Your task to perform on an android device: Go to battery settings Image 0: 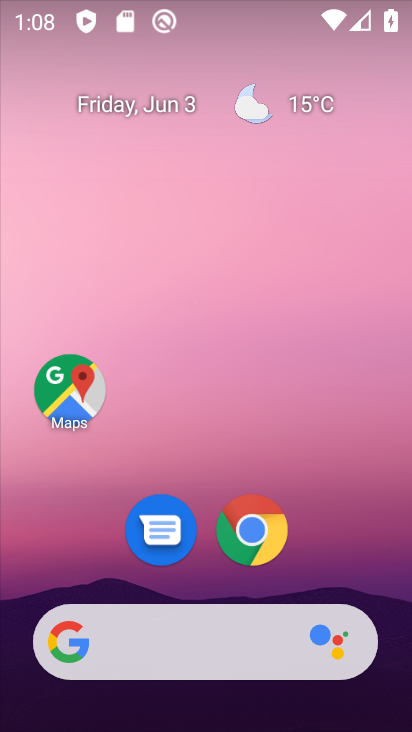
Step 0: drag from (284, 231) to (288, 59)
Your task to perform on an android device: Go to battery settings Image 1: 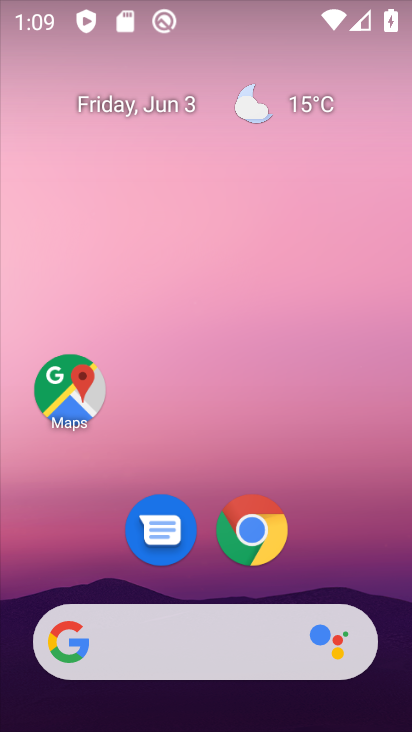
Step 1: drag from (319, 580) to (319, 7)
Your task to perform on an android device: Go to battery settings Image 2: 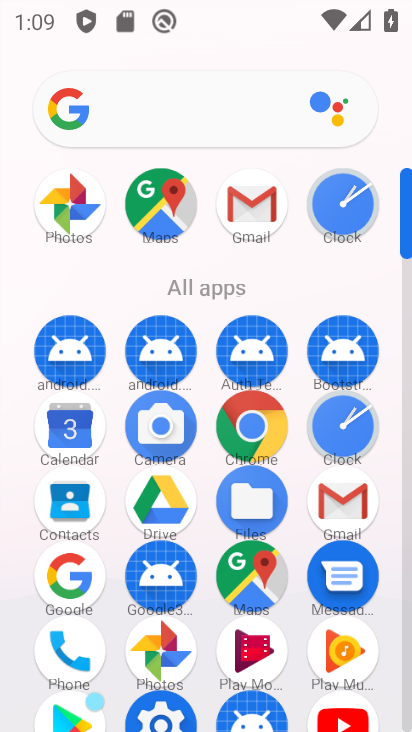
Step 2: click (161, 700)
Your task to perform on an android device: Go to battery settings Image 3: 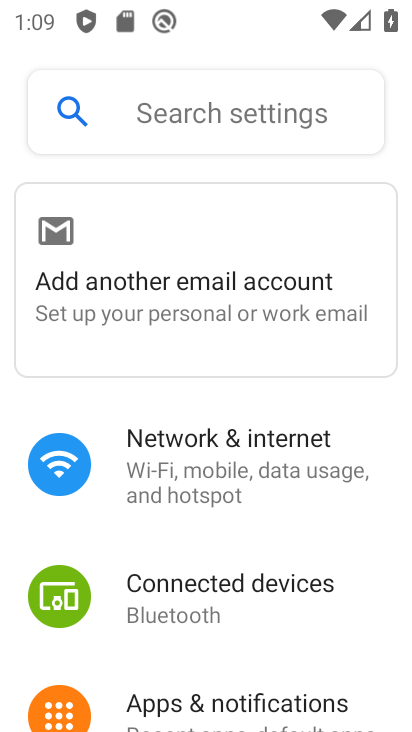
Step 3: drag from (195, 689) to (241, 81)
Your task to perform on an android device: Go to battery settings Image 4: 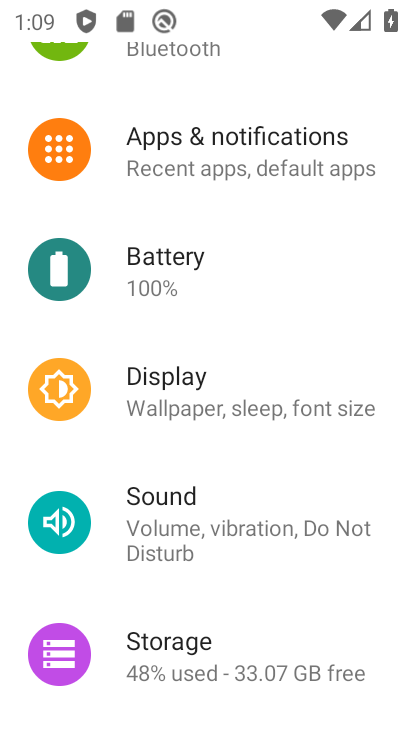
Step 4: click (173, 286)
Your task to perform on an android device: Go to battery settings Image 5: 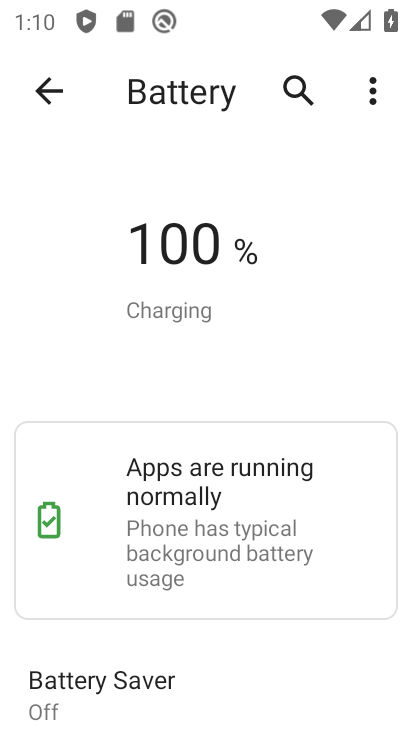
Step 5: task complete